Your task to perform on an android device: Do I have any events today? Image 0: 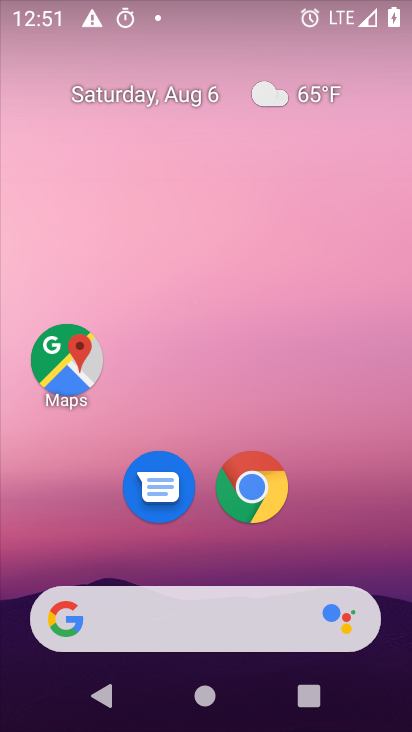
Step 0: drag from (181, 550) to (283, 63)
Your task to perform on an android device: Do I have any events today? Image 1: 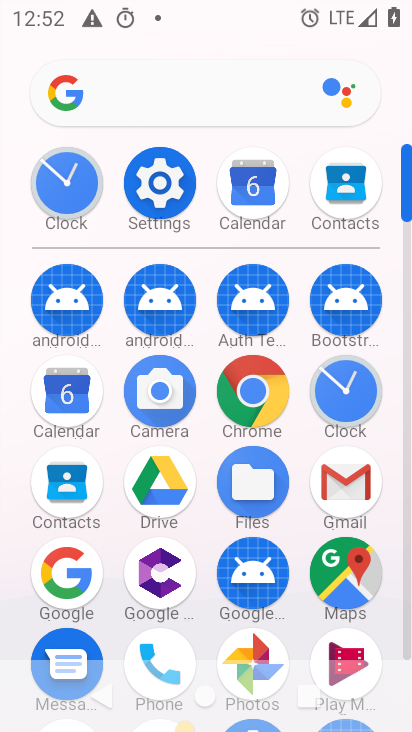
Step 1: click (74, 394)
Your task to perform on an android device: Do I have any events today? Image 2: 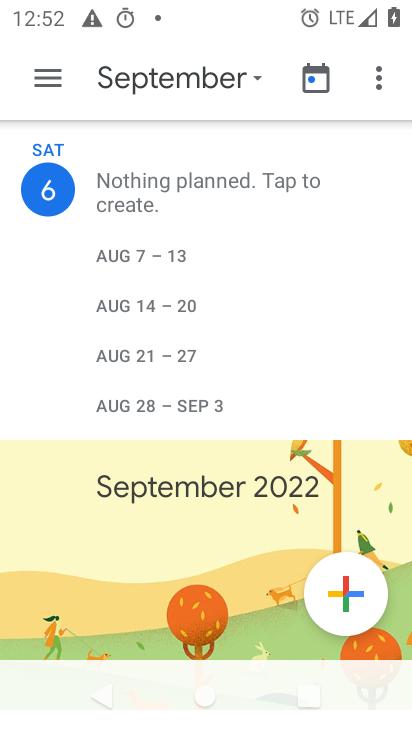
Step 2: drag from (277, 585) to (358, 31)
Your task to perform on an android device: Do I have any events today? Image 3: 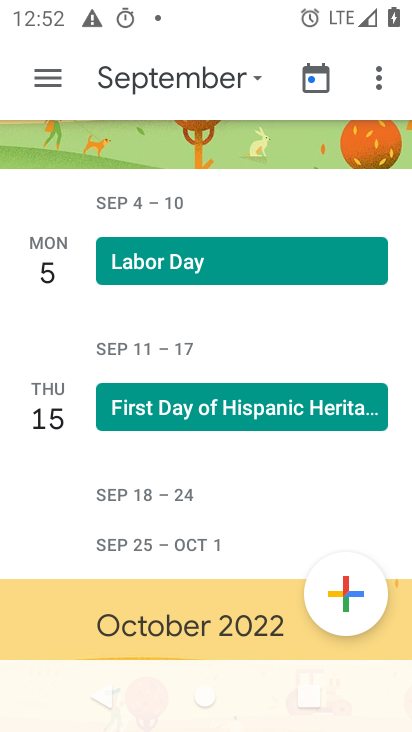
Step 3: drag from (280, 184) to (253, 429)
Your task to perform on an android device: Do I have any events today? Image 4: 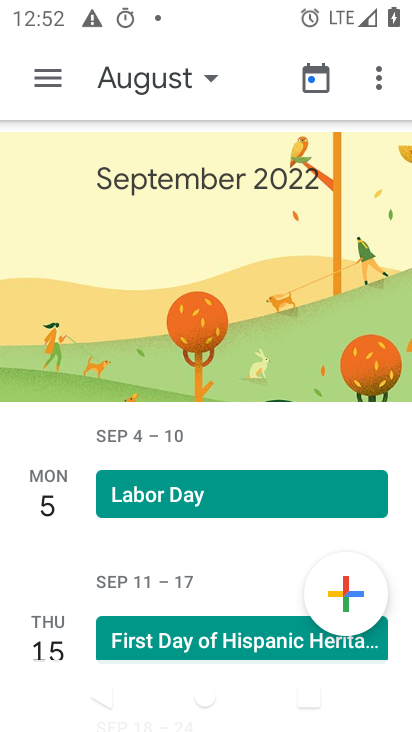
Step 4: click (161, 72)
Your task to perform on an android device: Do I have any events today? Image 5: 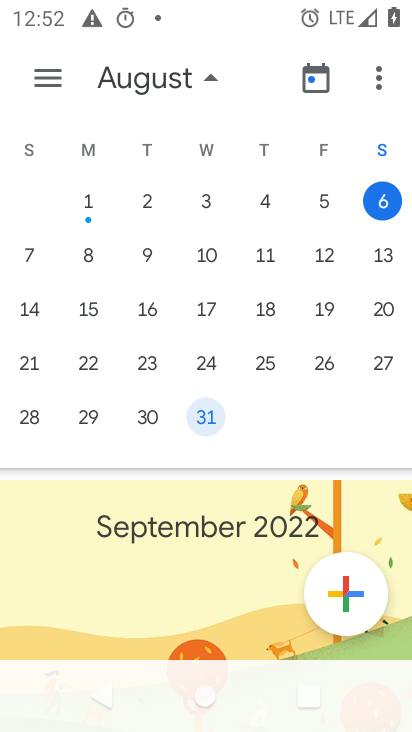
Step 5: drag from (21, 306) to (61, 304)
Your task to perform on an android device: Do I have any events today? Image 6: 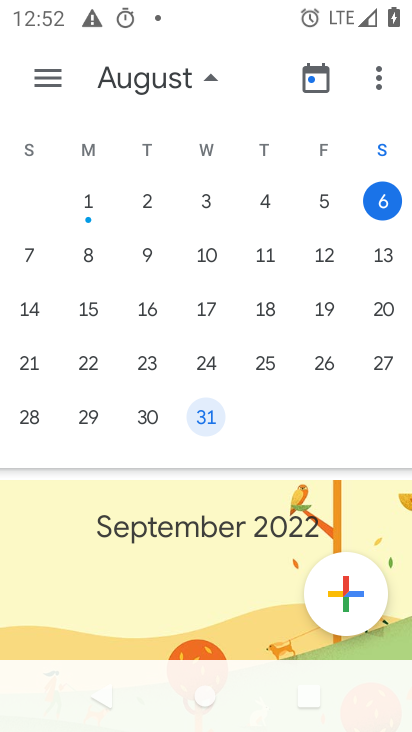
Step 6: click (375, 199)
Your task to perform on an android device: Do I have any events today? Image 7: 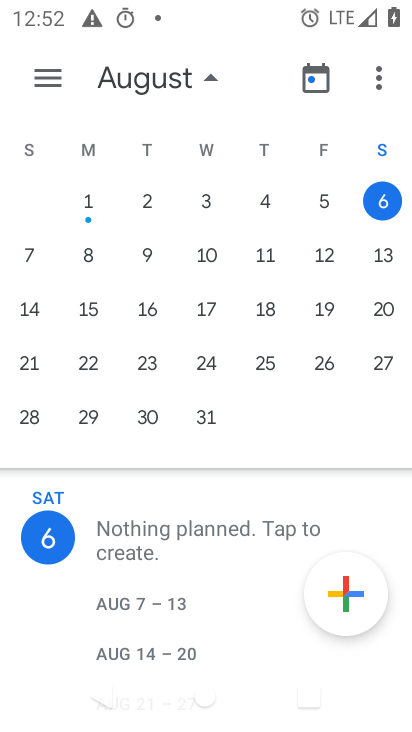
Step 7: task complete